Your task to perform on an android device: Open Google Chrome and open the bookmarks view Image 0: 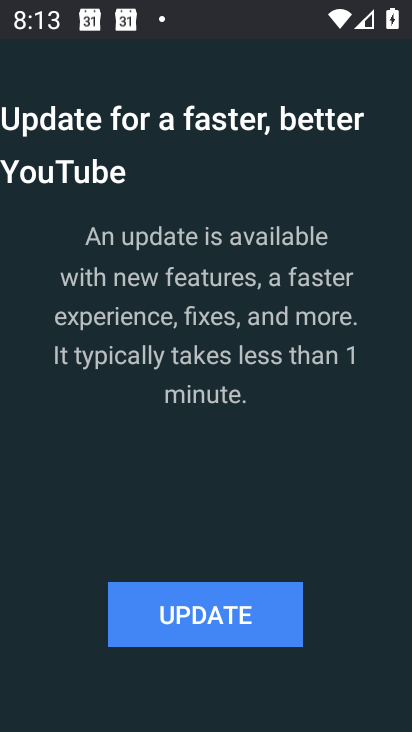
Step 0: press home button
Your task to perform on an android device: Open Google Chrome and open the bookmarks view Image 1: 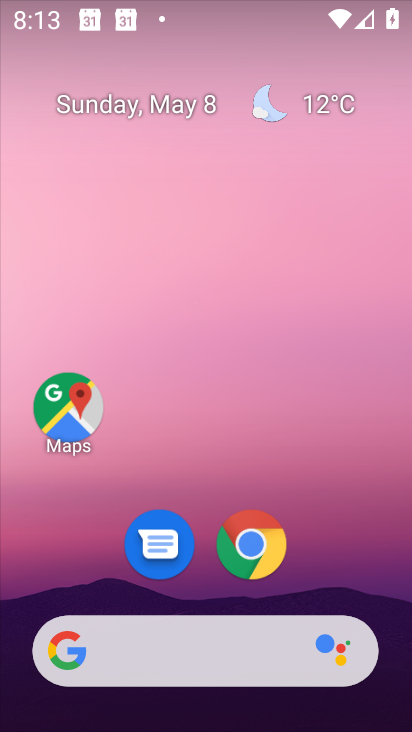
Step 1: click (255, 540)
Your task to perform on an android device: Open Google Chrome and open the bookmarks view Image 2: 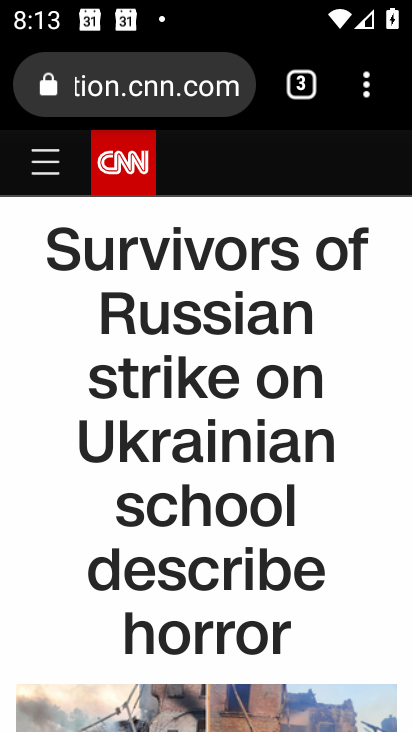
Step 2: click (359, 83)
Your task to perform on an android device: Open Google Chrome and open the bookmarks view Image 3: 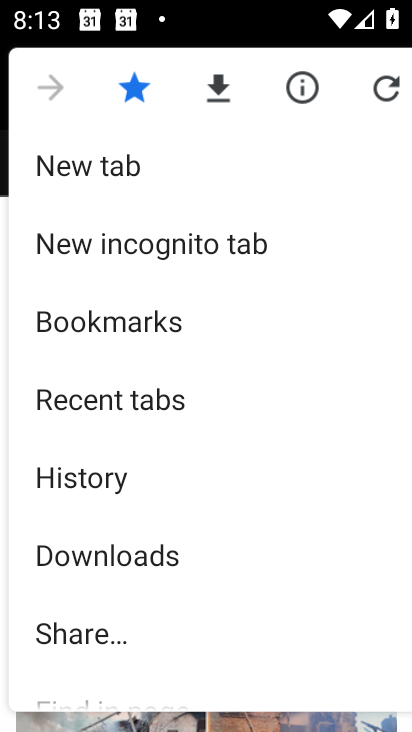
Step 3: click (121, 323)
Your task to perform on an android device: Open Google Chrome and open the bookmarks view Image 4: 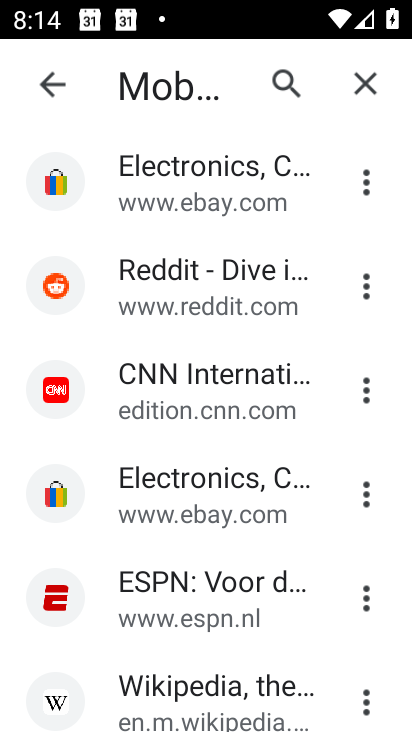
Step 4: click (365, 176)
Your task to perform on an android device: Open Google Chrome and open the bookmarks view Image 5: 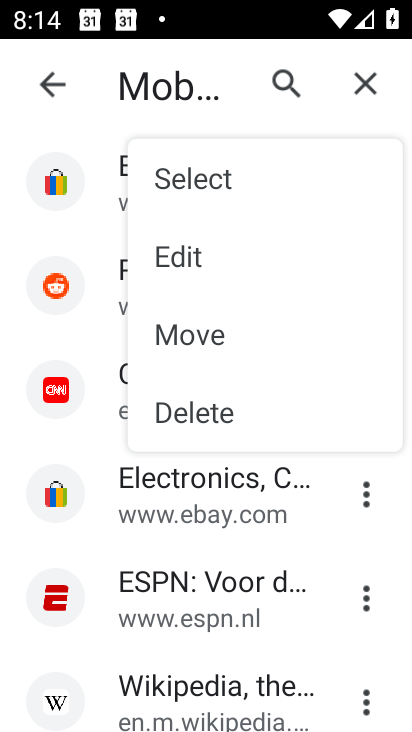
Step 5: click (180, 256)
Your task to perform on an android device: Open Google Chrome and open the bookmarks view Image 6: 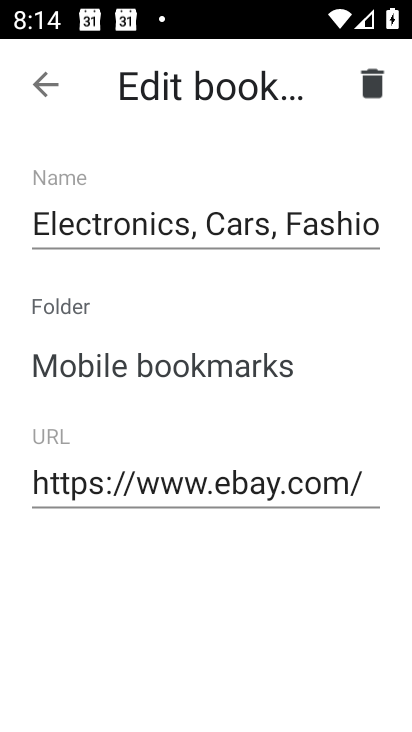
Step 6: task complete